Your task to perform on an android device: star an email in the gmail app Image 0: 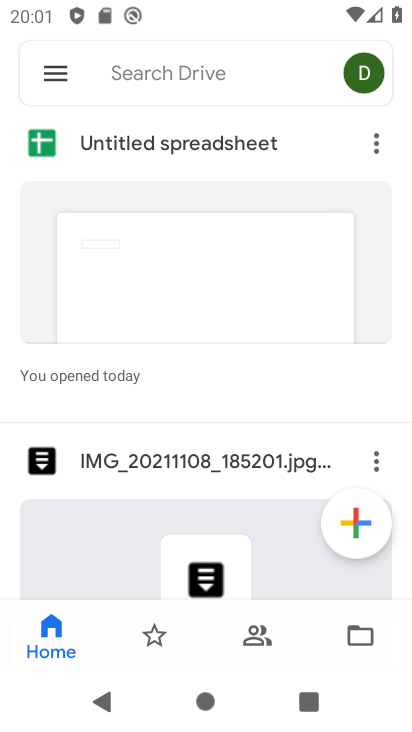
Step 0: press home button
Your task to perform on an android device: star an email in the gmail app Image 1: 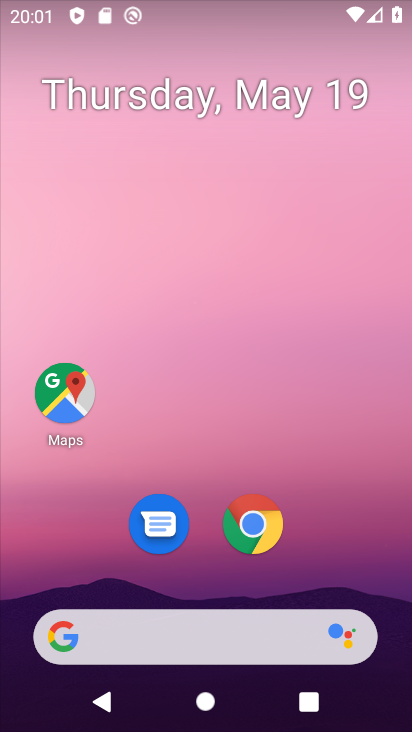
Step 1: drag from (299, 493) to (269, 85)
Your task to perform on an android device: star an email in the gmail app Image 2: 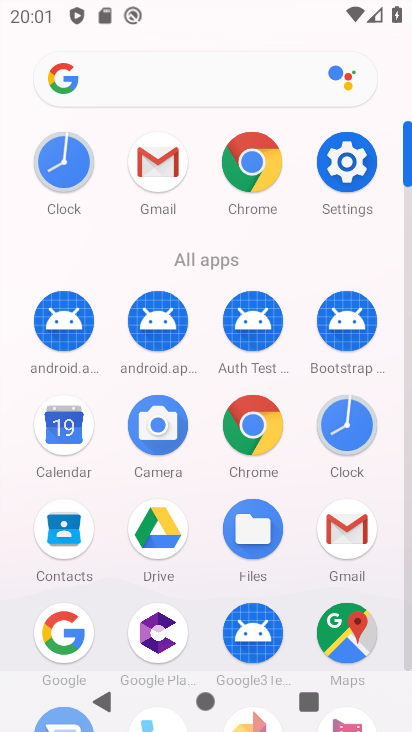
Step 2: click (154, 166)
Your task to perform on an android device: star an email in the gmail app Image 3: 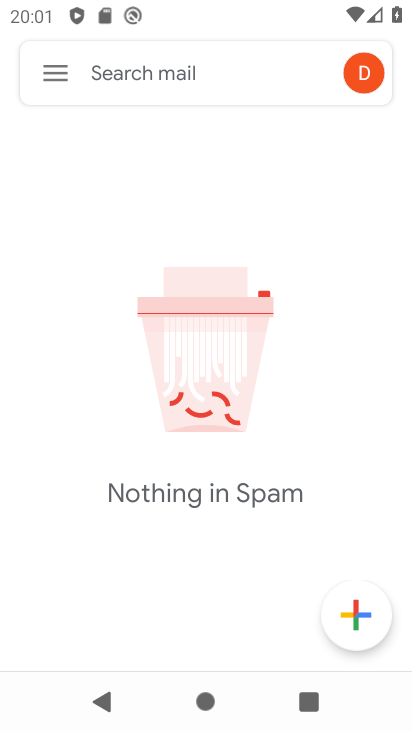
Step 3: click (52, 71)
Your task to perform on an android device: star an email in the gmail app Image 4: 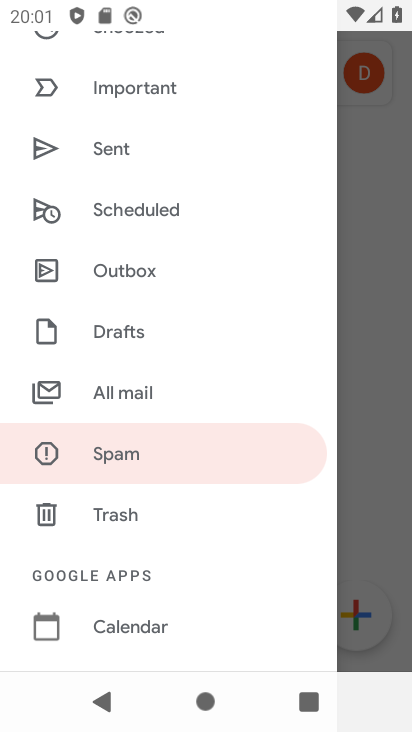
Step 4: click (125, 385)
Your task to perform on an android device: star an email in the gmail app Image 5: 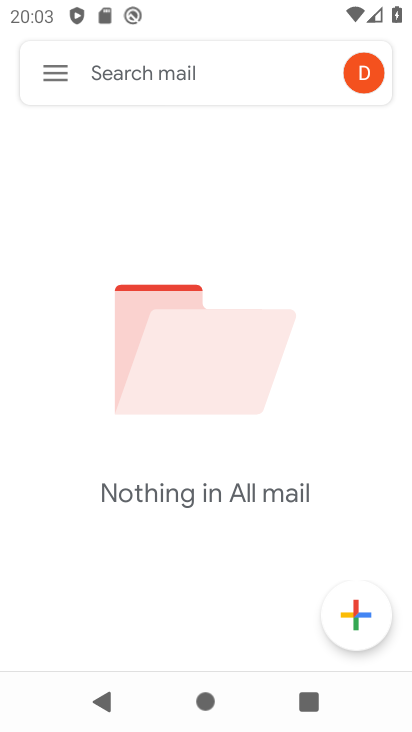
Step 5: task complete